Your task to perform on an android device: Open Google Chrome and open the bookmarks view Image 0: 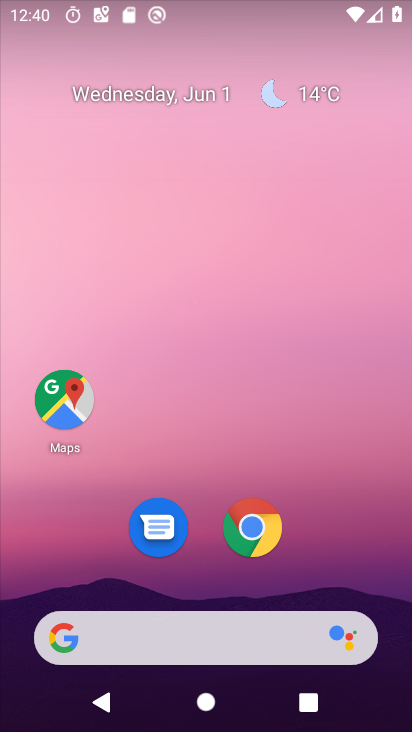
Step 0: click (236, 529)
Your task to perform on an android device: Open Google Chrome and open the bookmarks view Image 1: 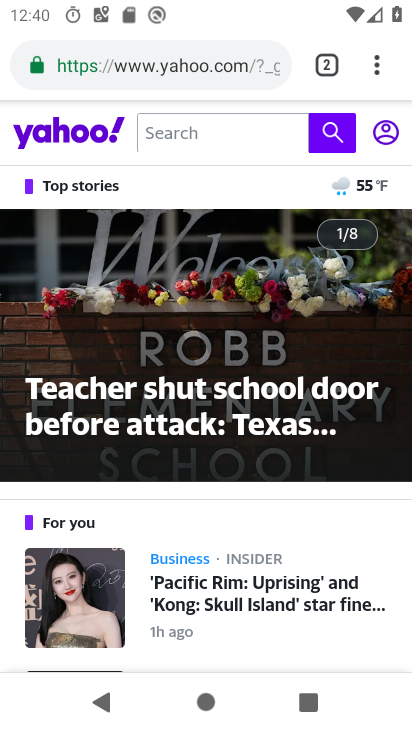
Step 1: click (374, 59)
Your task to perform on an android device: Open Google Chrome and open the bookmarks view Image 2: 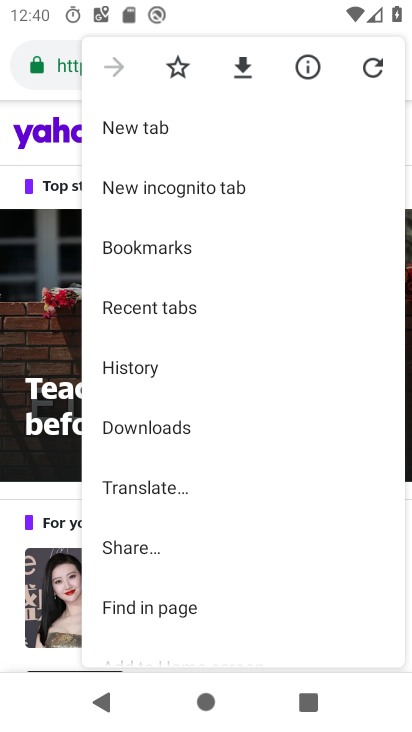
Step 2: click (143, 247)
Your task to perform on an android device: Open Google Chrome and open the bookmarks view Image 3: 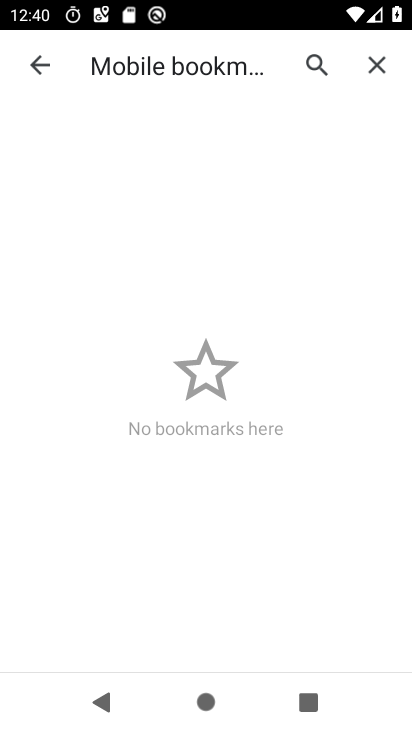
Step 3: task complete